Your task to perform on an android device: toggle priority inbox in the gmail app Image 0: 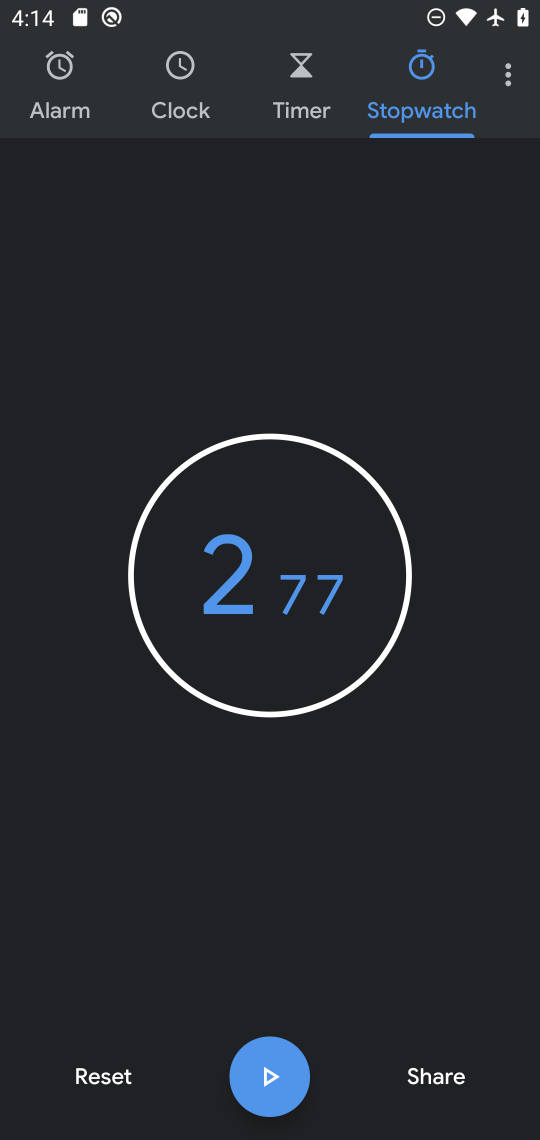
Step 0: press home button
Your task to perform on an android device: toggle priority inbox in the gmail app Image 1: 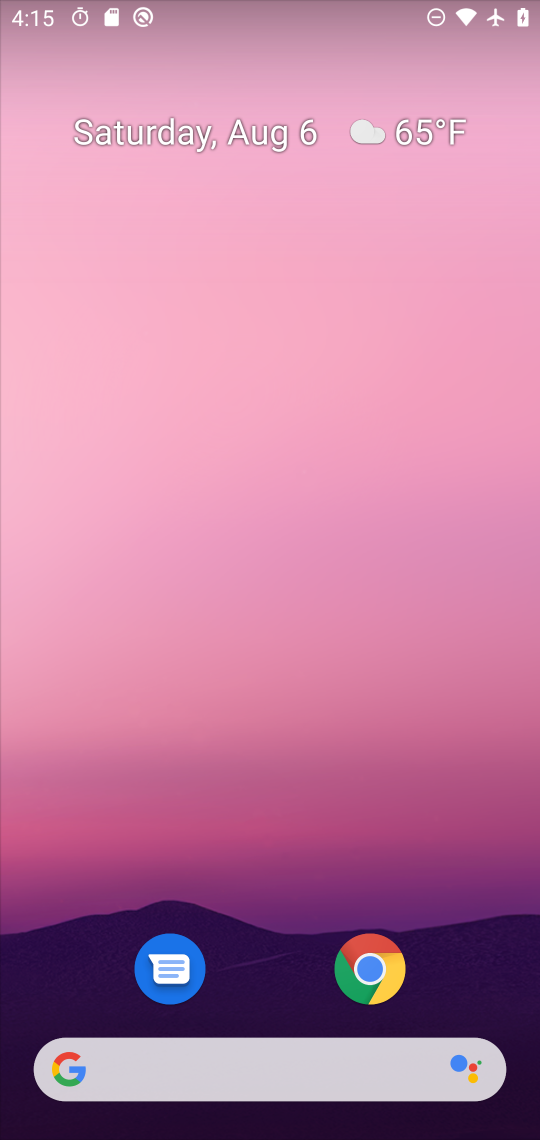
Step 1: drag from (266, 659) to (214, 129)
Your task to perform on an android device: toggle priority inbox in the gmail app Image 2: 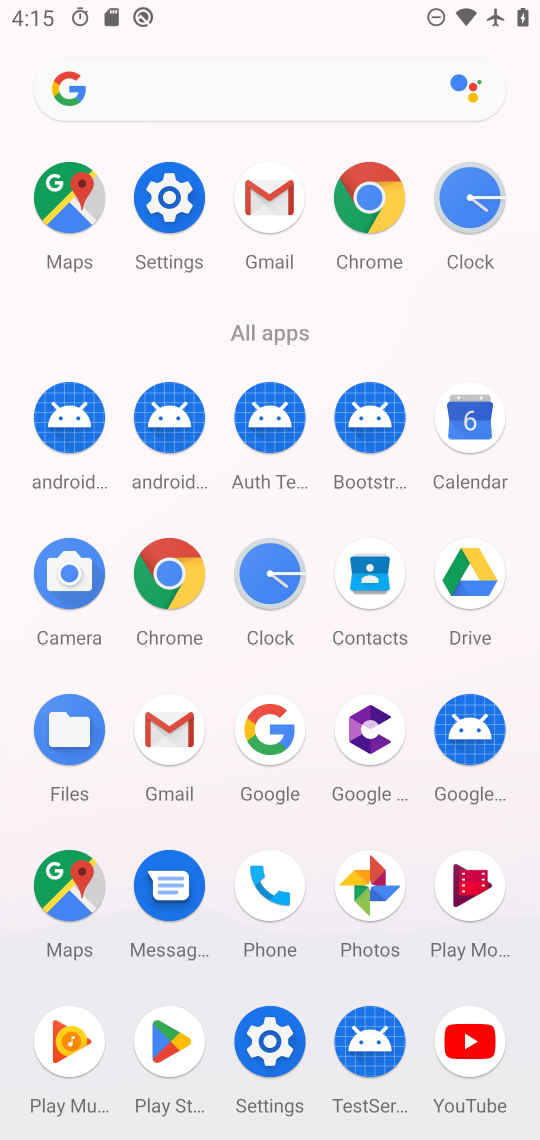
Step 2: click (270, 200)
Your task to perform on an android device: toggle priority inbox in the gmail app Image 3: 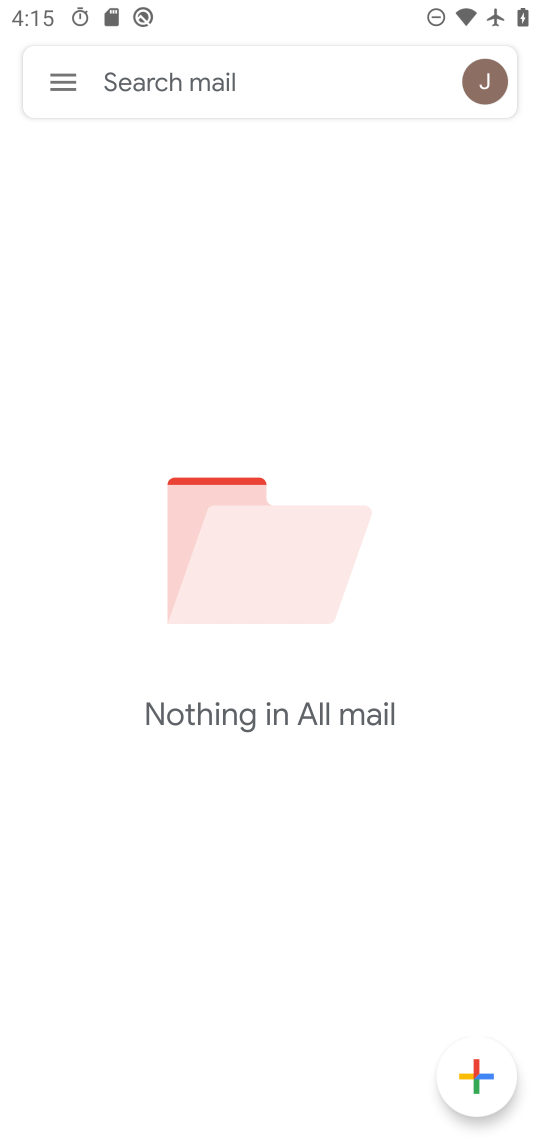
Step 3: click (56, 76)
Your task to perform on an android device: toggle priority inbox in the gmail app Image 4: 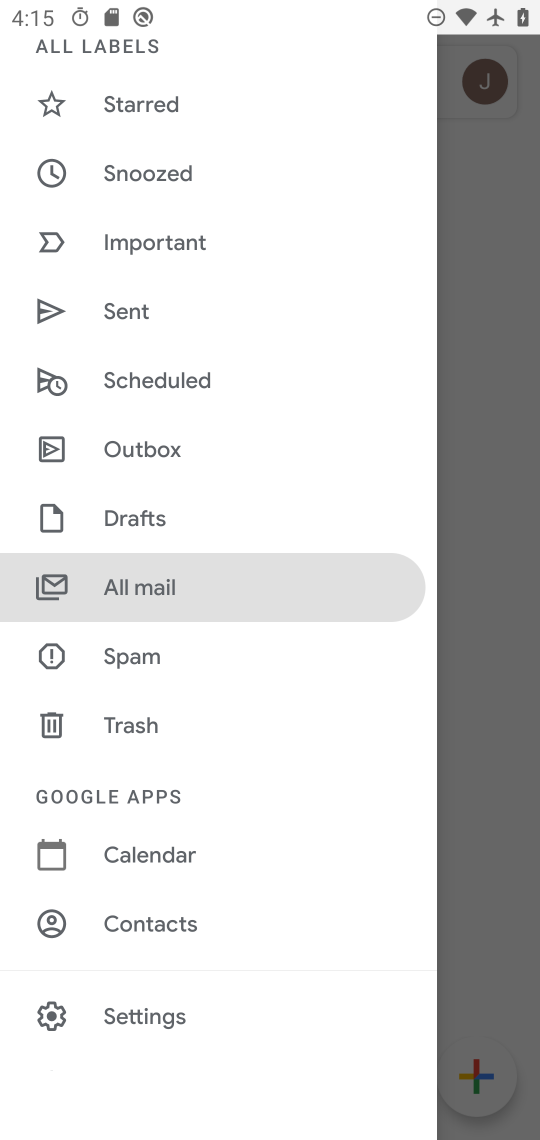
Step 4: click (160, 1026)
Your task to perform on an android device: toggle priority inbox in the gmail app Image 5: 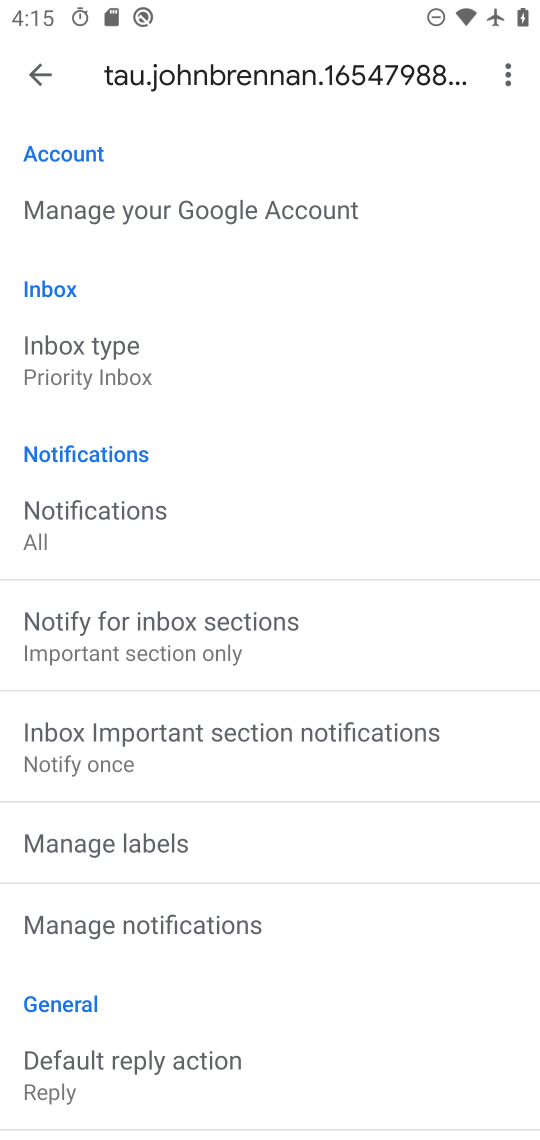
Step 5: click (96, 352)
Your task to perform on an android device: toggle priority inbox in the gmail app Image 6: 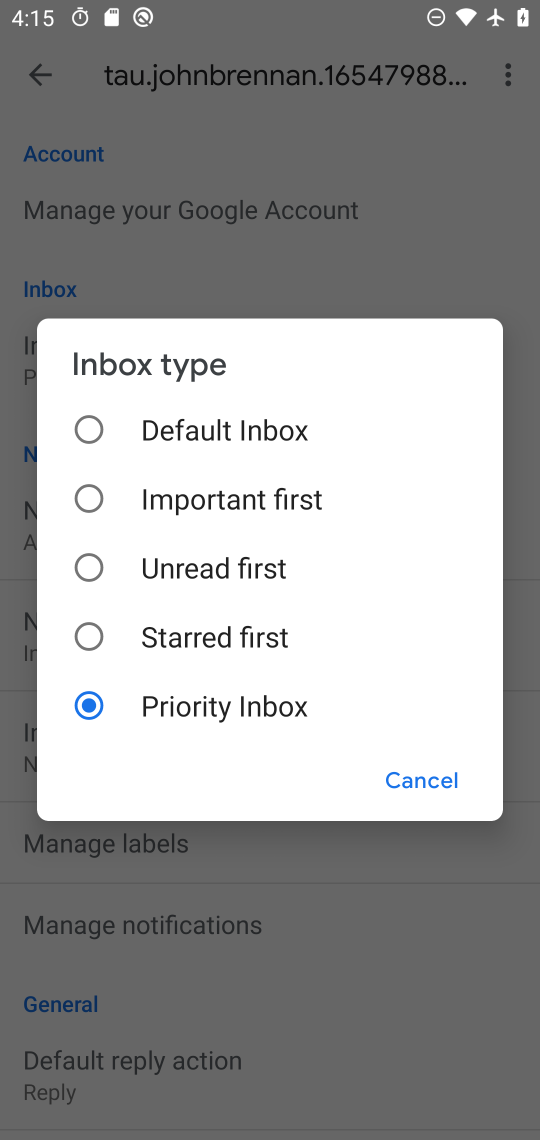
Step 6: click (80, 428)
Your task to perform on an android device: toggle priority inbox in the gmail app Image 7: 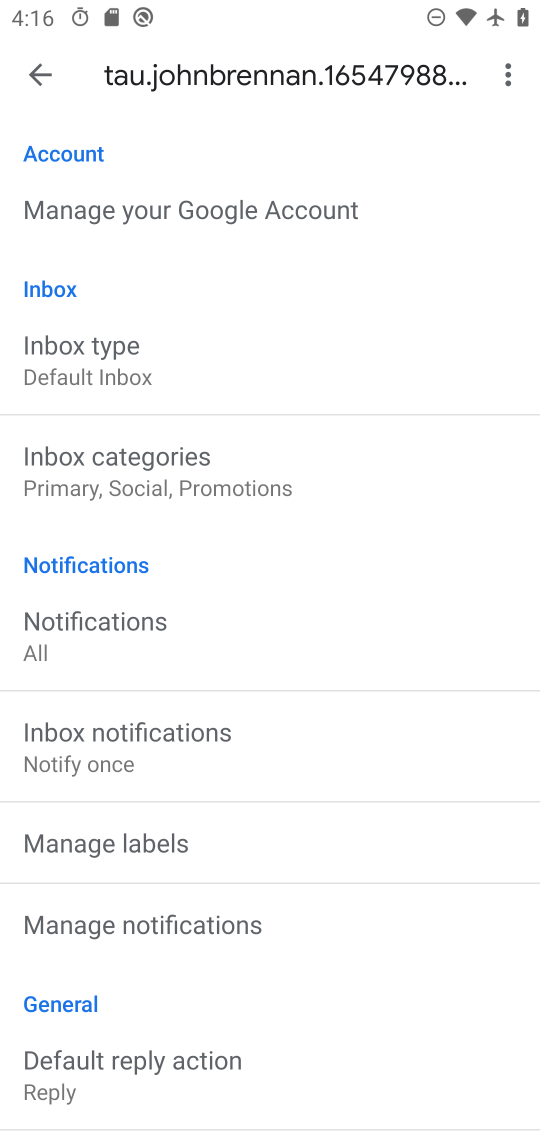
Step 7: task complete